Your task to perform on an android device: Go to Maps Image 0: 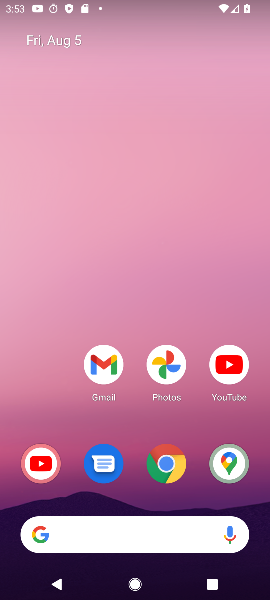
Step 0: drag from (179, 559) to (146, 175)
Your task to perform on an android device: Go to Maps Image 1: 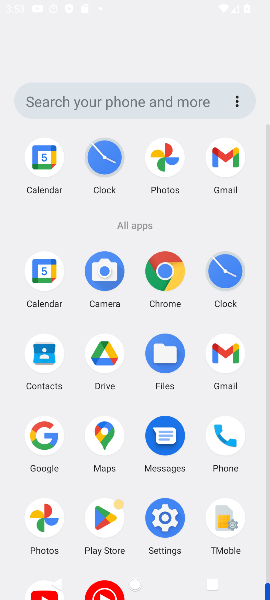
Step 1: drag from (173, 488) to (140, 158)
Your task to perform on an android device: Go to Maps Image 2: 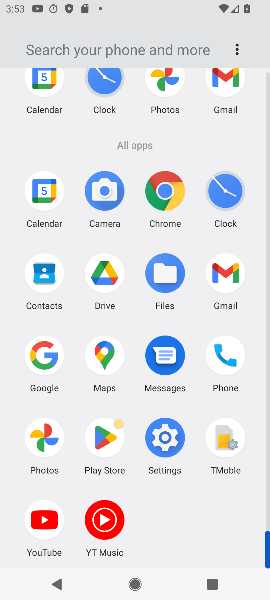
Step 2: click (105, 341)
Your task to perform on an android device: Go to Maps Image 3: 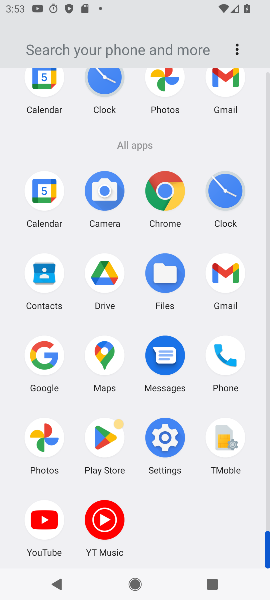
Step 3: click (105, 341)
Your task to perform on an android device: Go to Maps Image 4: 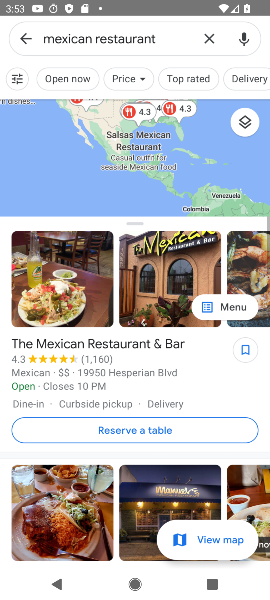
Step 4: click (105, 341)
Your task to perform on an android device: Go to Maps Image 5: 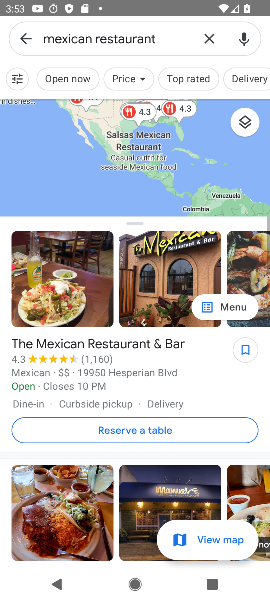
Step 5: click (105, 341)
Your task to perform on an android device: Go to Maps Image 6: 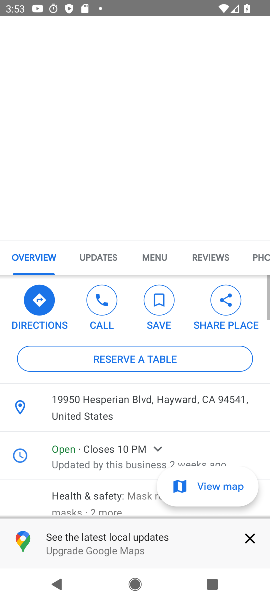
Step 6: task complete